Your task to perform on an android device: Go to Android settings Image 0: 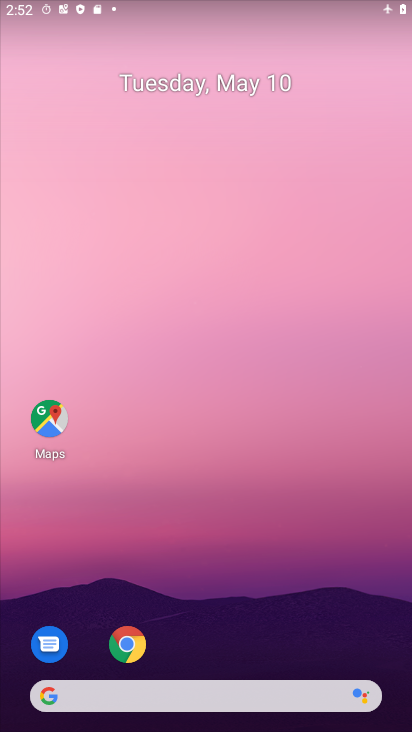
Step 0: drag from (235, 683) to (157, 0)
Your task to perform on an android device: Go to Android settings Image 1: 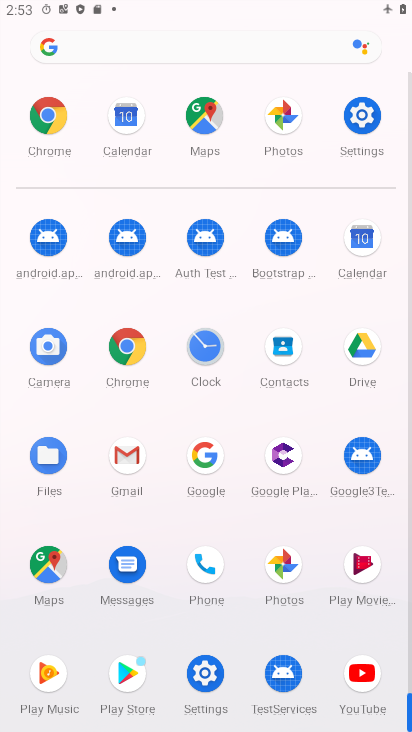
Step 1: click (363, 119)
Your task to perform on an android device: Go to Android settings Image 2: 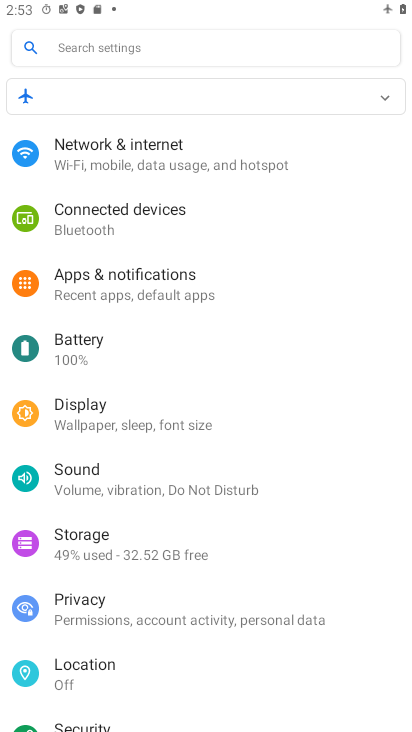
Step 2: task complete